Your task to perform on an android device: change your default location settings in chrome Image 0: 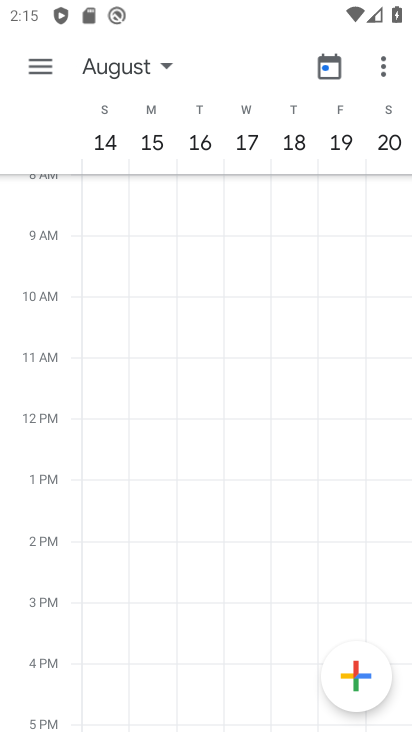
Step 0: press home button
Your task to perform on an android device: change your default location settings in chrome Image 1: 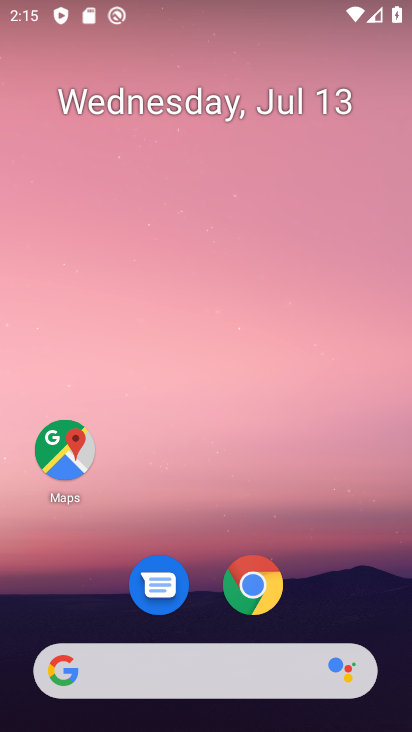
Step 1: click (252, 590)
Your task to perform on an android device: change your default location settings in chrome Image 2: 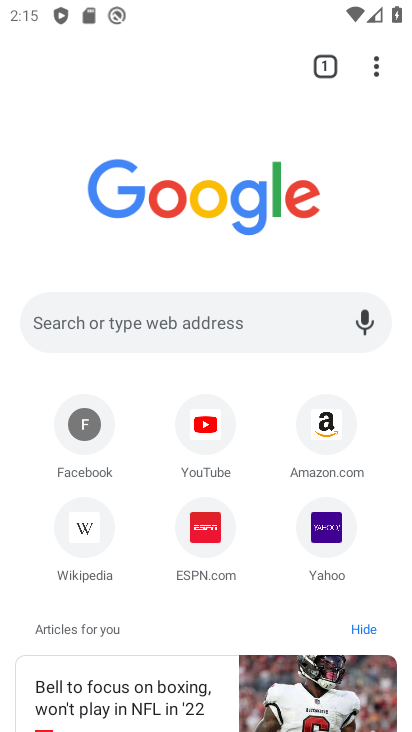
Step 2: drag from (374, 62) to (197, 562)
Your task to perform on an android device: change your default location settings in chrome Image 3: 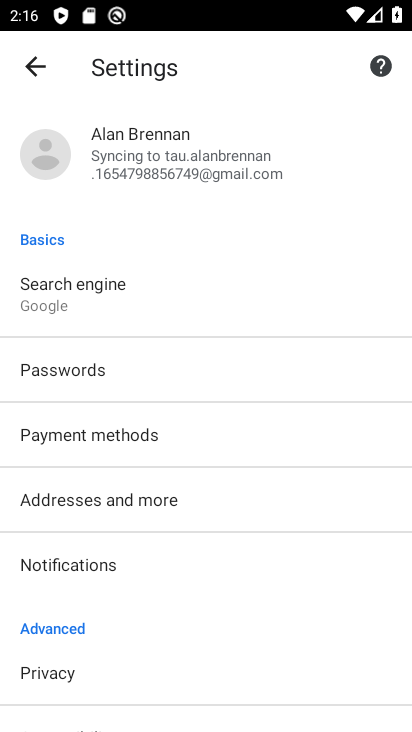
Step 3: drag from (183, 614) to (269, 358)
Your task to perform on an android device: change your default location settings in chrome Image 4: 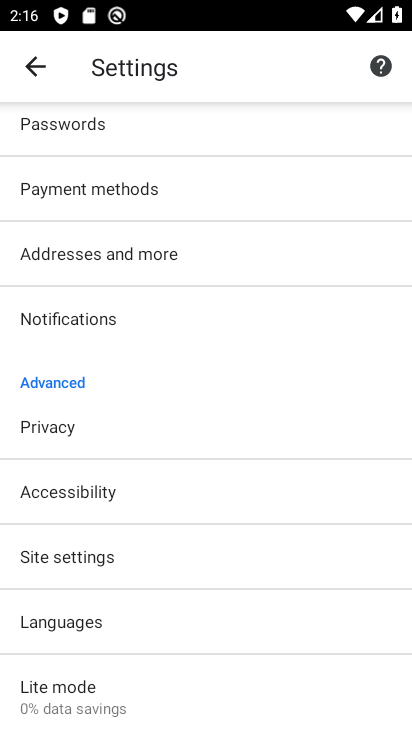
Step 4: click (71, 557)
Your task to perform on an android device: change your default location settings in chrome Image 5: 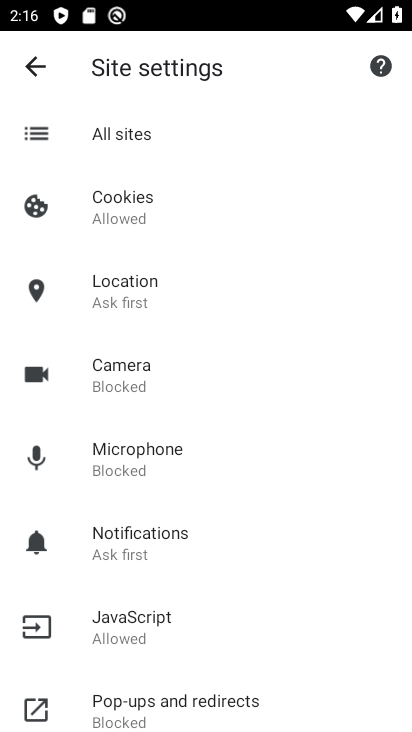
Step 5: click (119, 296)
Your task to perform on an android device: change your default location settings in chrome Image 6: 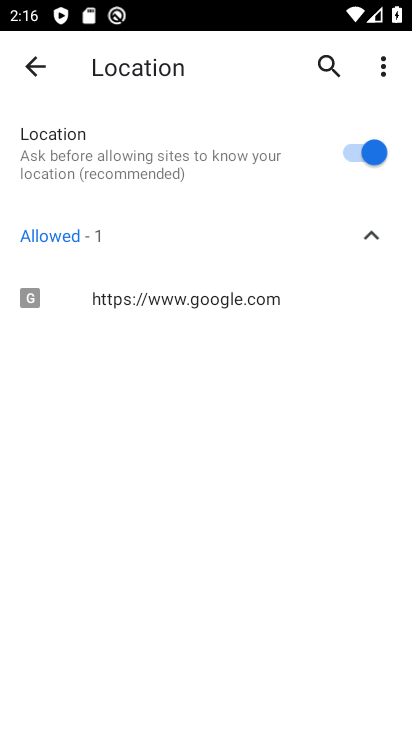
Step 6: click (357, 159)
Your task to perform on an android device: change your default location settings in chrome Image 7: 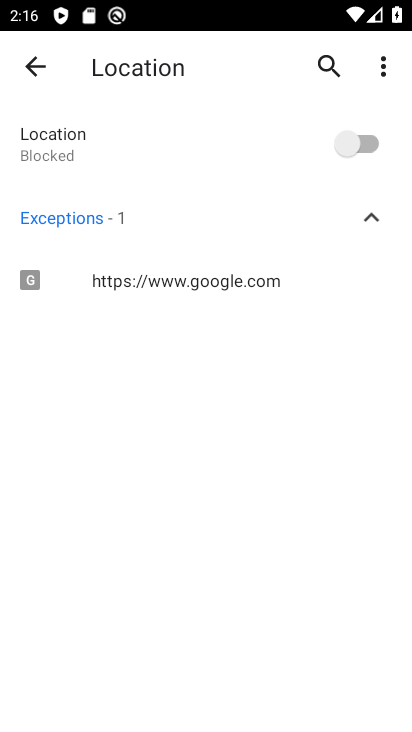
Step 7: task complete